Your task to perform on an android device: toggle show notifications on the lock screen Image 0: 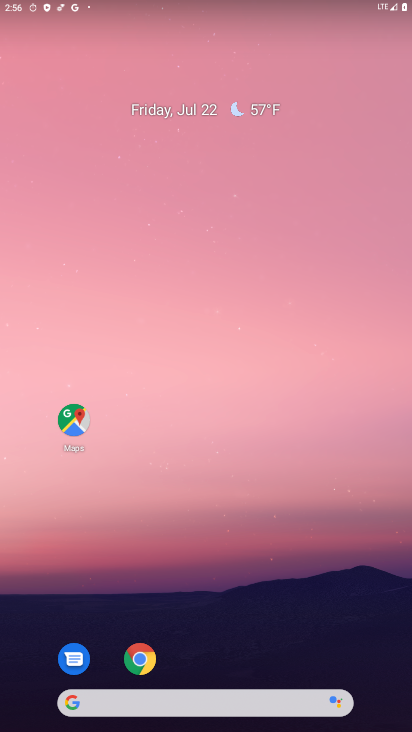
Step 0: drag from (260, 634) to (248, 105)
Your task to perform on an android device: toggle show notifications on the lock screen Image 1: 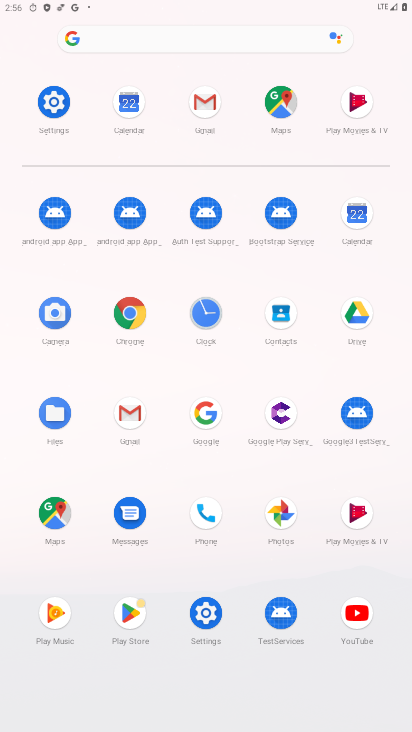
Step 1: click (54, 90)
Your task to perform on an android device: toggle show notifications on the lock screen Image 2: 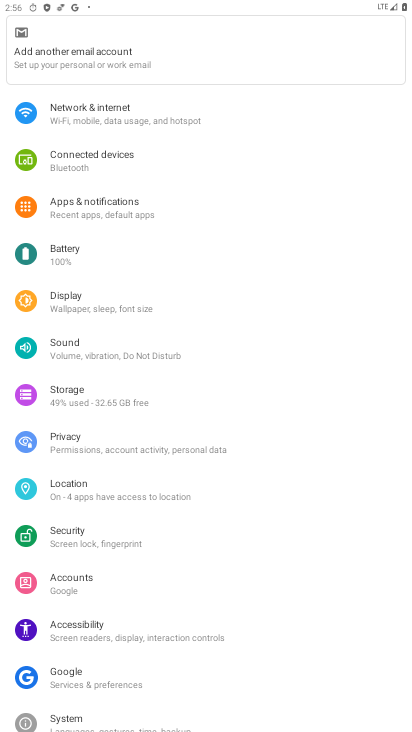
Step 2: click (86, 212)
Your task to perform on an android device: toggle show notifications on the lock screen Image 3: 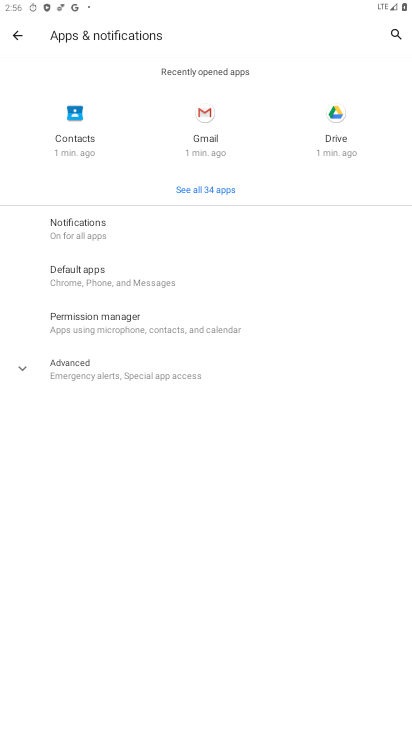
Step 3: click (88, 229)
Your task to perform on an android device: toggle show notifications on the lock screen Image 4: 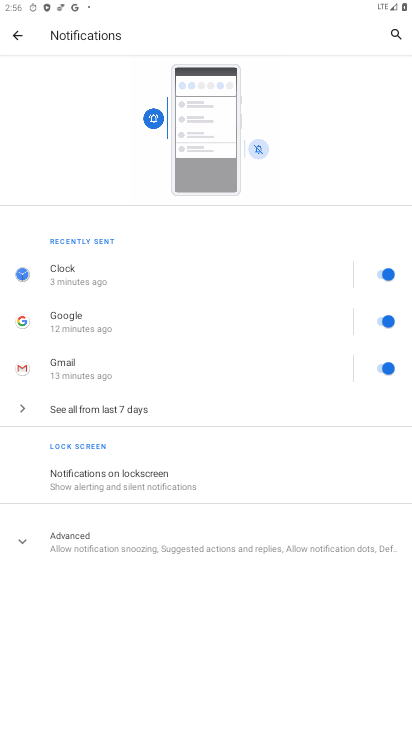
Step 4: click (91, 491)
Your task to perform on an android device: toggle show notifications on the lock screen Image 5: 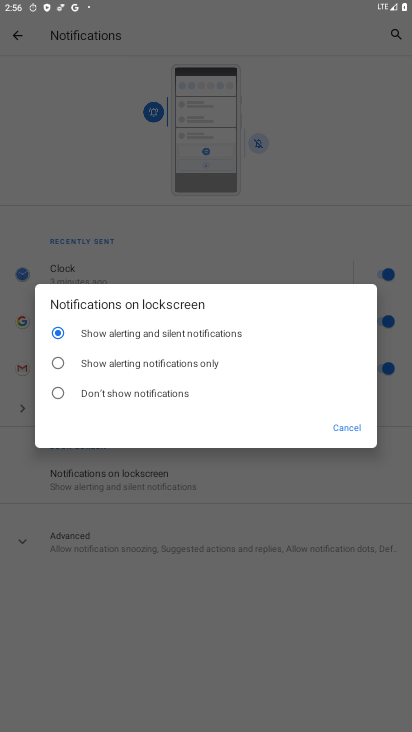
Step 5: click (94, 367)
Your task to perform on an android device: toggle show notifications on the lock screen Image 6: 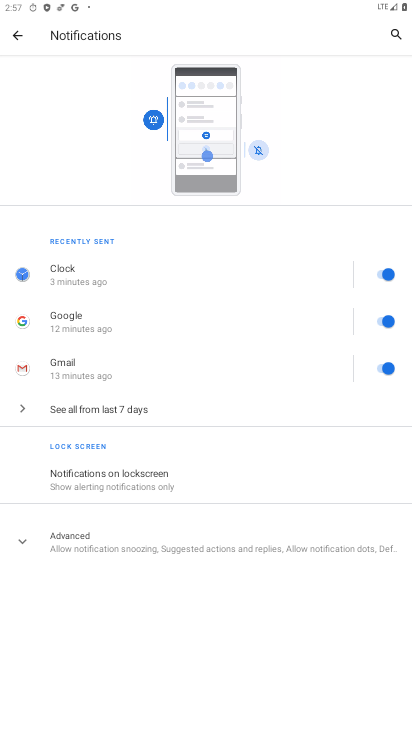
Step 6: task complete